Your task to perform on an android device: snooze an email in the gmail app Image 0: 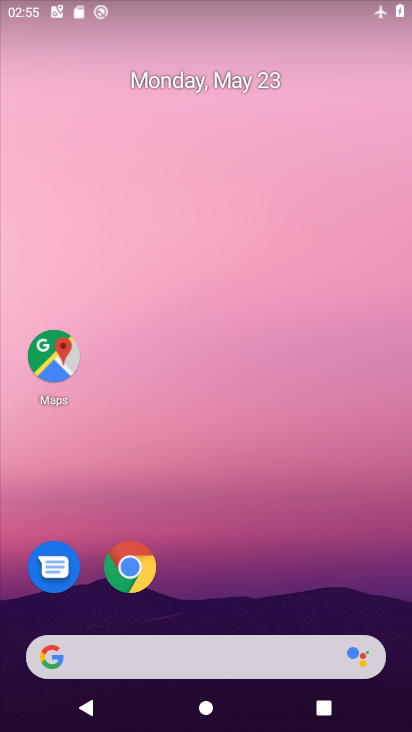
Step 0: drag from (223, 604) to (226, 285)
Your task to perform on an android device: snooze an email in the gmail app Image 1: 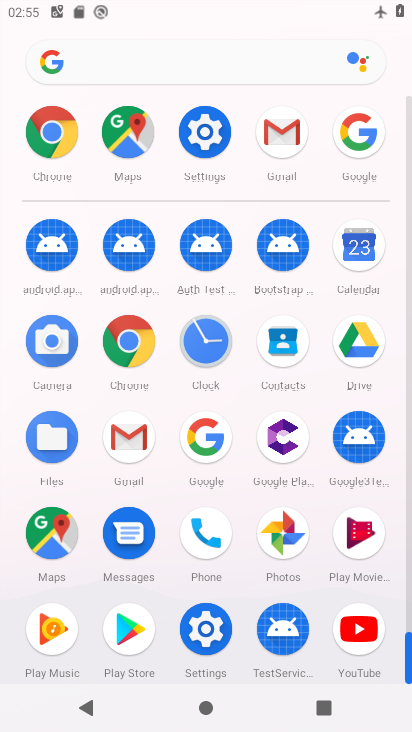
Step 1: click (140, 427)
Your task to perform on an android device: snooze an email in the gmail app Image 2: 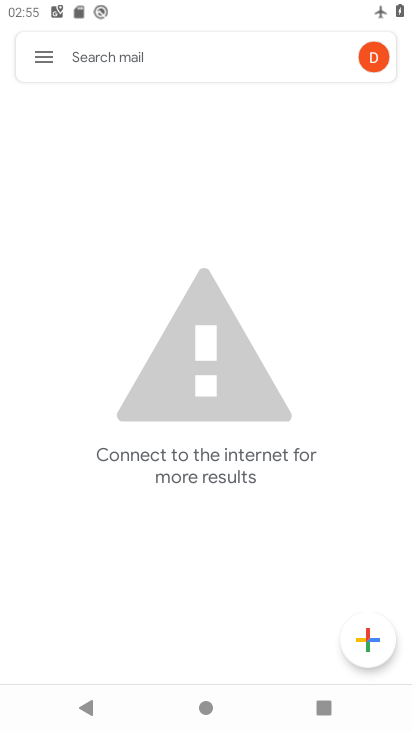
Step 2: click (35, 62)
Your task to perform on an android device: snooze an email in the gmail app Image 3: 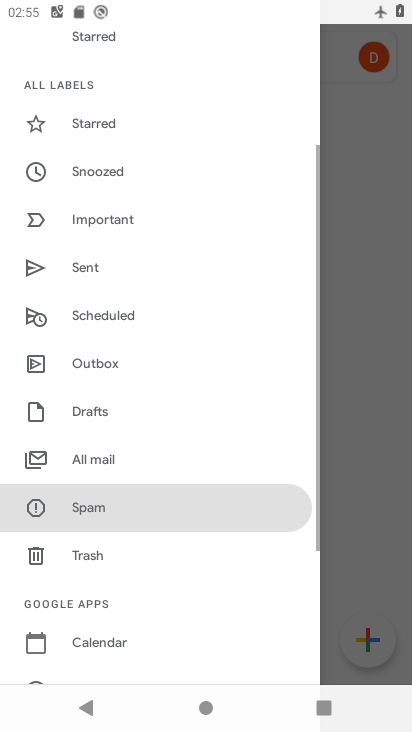
Step 3: click (93, 463)
Your task to perform on an android device: snooze an email in the gmail app Image 4: 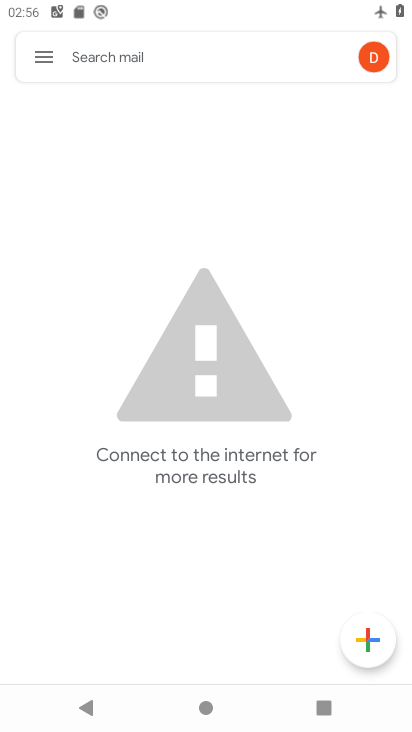
Step 4: task complete